Your task to perform on an android device: turn off priority inbox in the gmail app Image 0: 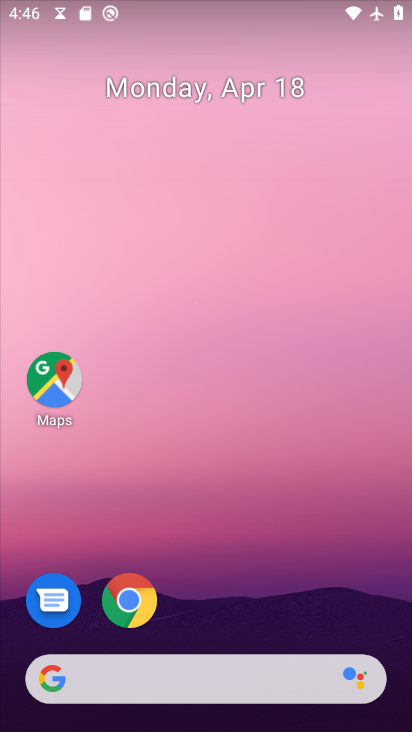
Step 0: drag from (230, 485) to (375, 15)
Your task to perform on an android device: turn off priority inbox in the gmail app Image 1: 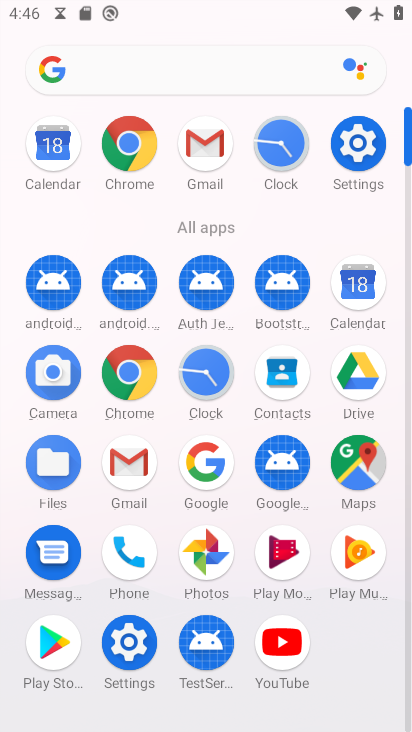
Step 1: click (121, 469)
Your task to perform on an android device: turn off priority inbox in the gmail app Image 2: 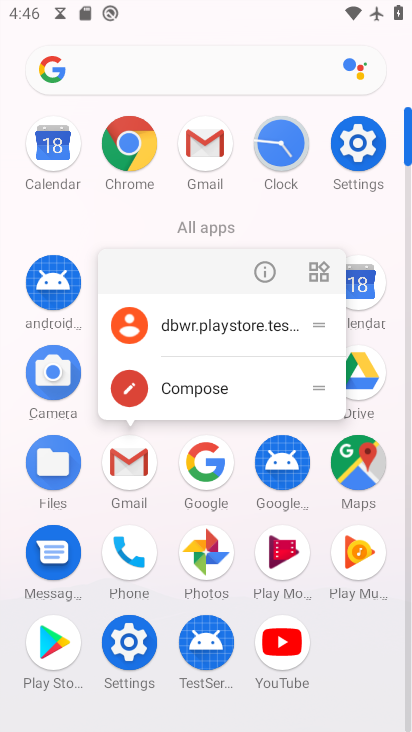
Step 2: click (124, 477)
Your task to perform on an android device: turn off priority inbox in the gmail app Image 3: 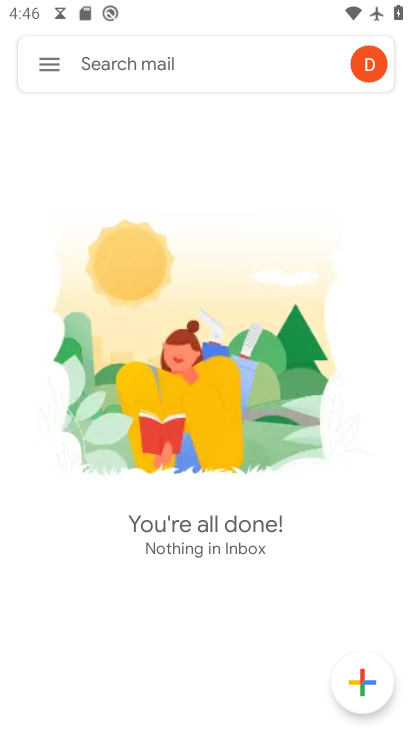
Step 3: click (48, 62)
Your task to perform on an android device: turn off priority inbox in the gmail app Image 4: 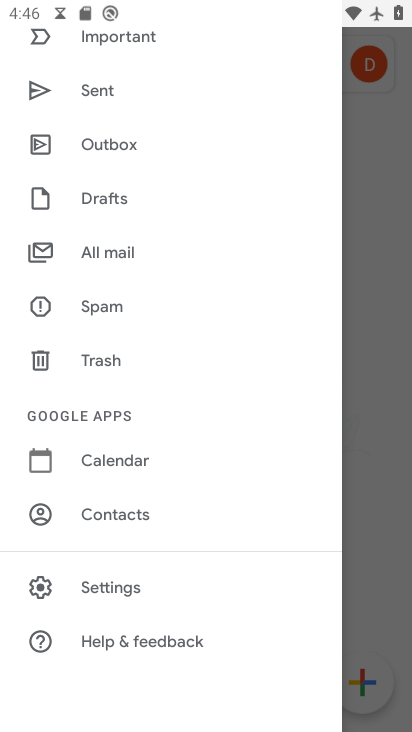
Step 4: click (120, 587)
Your task to perform on an android device: turn off priority inbox in the gmail app Image 5: 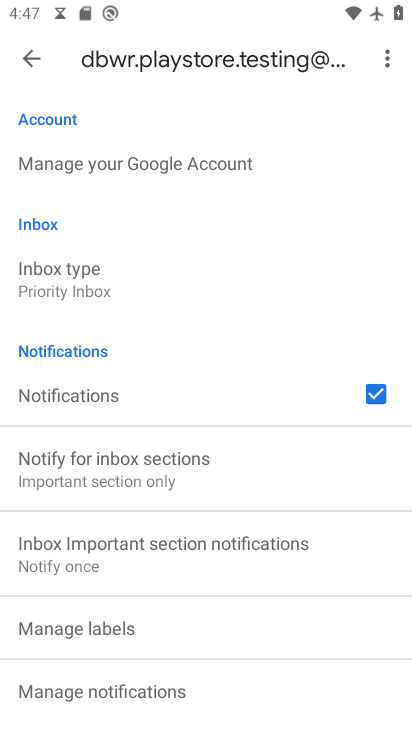
Step 5: click (78, 305)
Your task to perform on an android device: turn off priority inbox in the gmail app Image 6: 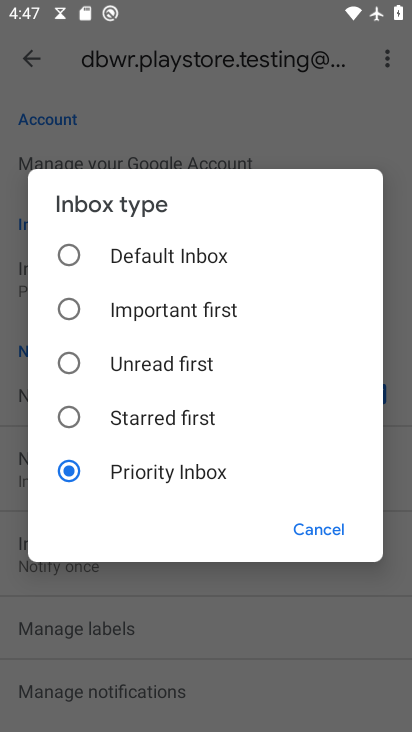
Step 6: click (70, 252)
Your task to perform on an android device: turn off priority inbox in the gmail app Image 7: 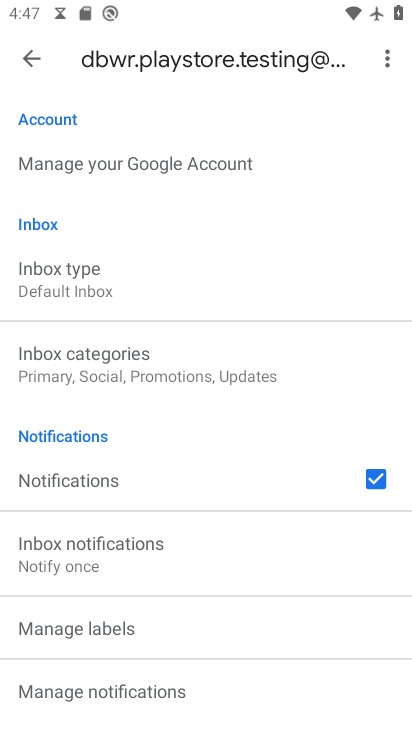
Step 7: task complete